Your task to perform on an android device: Show me popular videos on Youtube Image 0: 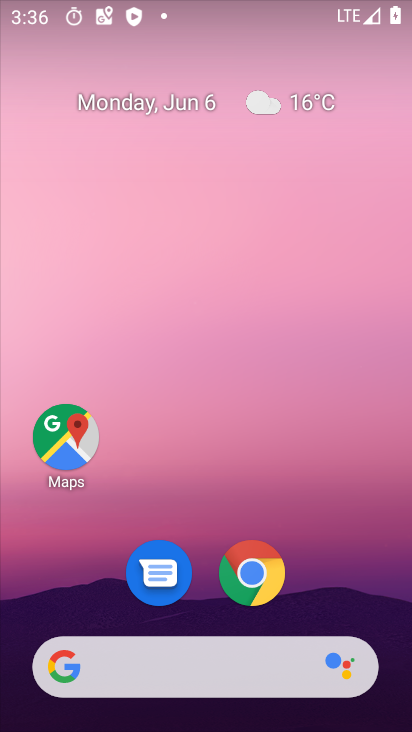
Step 0: drag from (370, 600) to (360, 304)
Your task to perform on an android device: Show me popular videos on Youtube Image 1: 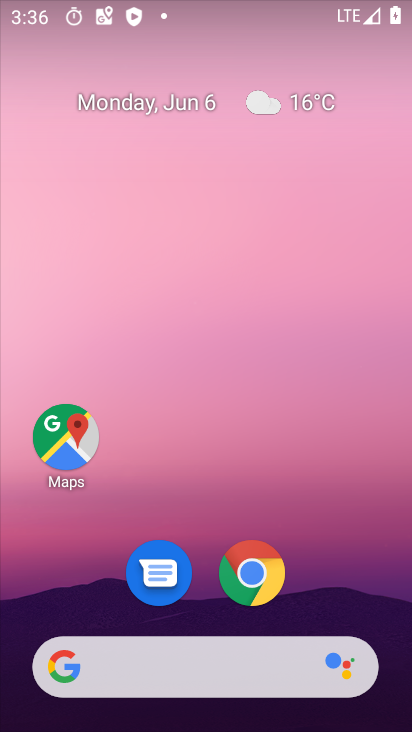
Step 1: drag from (366, 593) to (360, 83)
Your task to perform on an android device: Show me popular videos on Youtube Image 2: 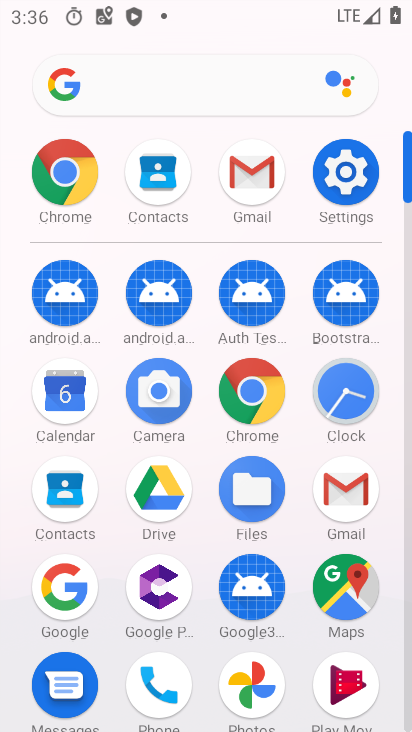
Step 2: drag from (384, 638) to (382, 355)
Your task to perform on an android device: Show me popular videos on Youtube Image 3: 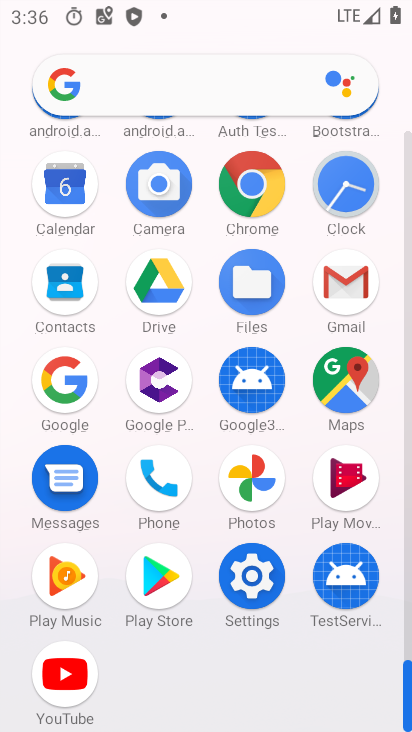
Step 3: click (75, 683)
Your task to perform on an android device: Show me popular videos on Youtube Image 4: 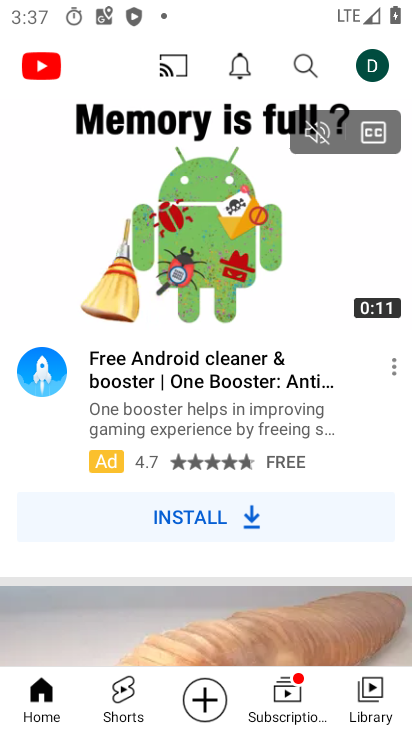
Step 4: task complete